Your task to perform on an android device: turn on bluetooth scan Image 0: 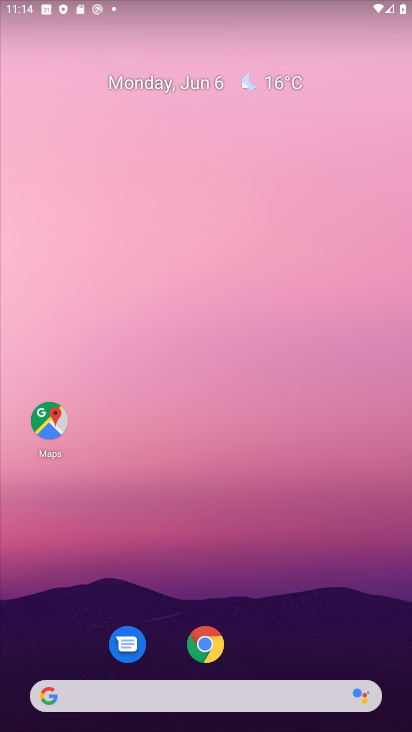
Step 0: drag from (312, 614) to (248, 233)
Your task to perform on an android device: turn on bluetooth scan Image 1: 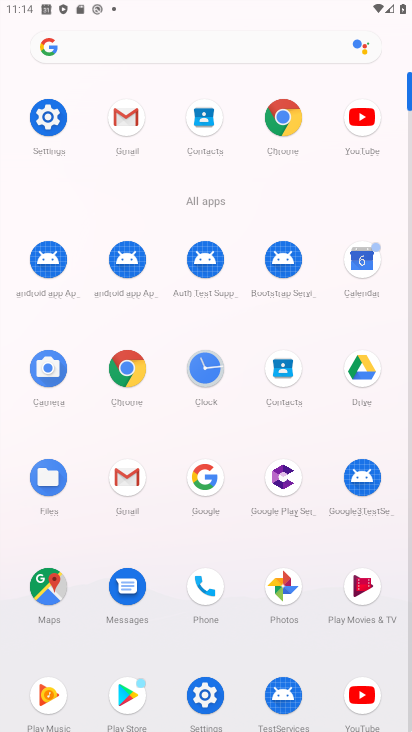
Step 1: click (43, 124)
Your task to perform on an android device: turn on bluetooth scan Image 2: 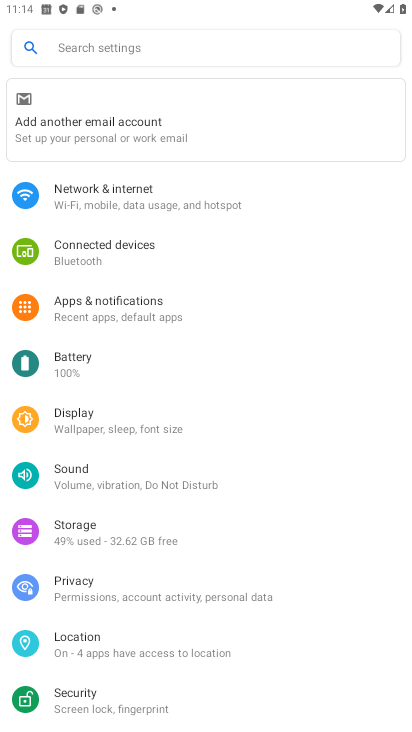
Step 2: click (163, 638)
Your task to perform on an android device: turn on bluetooth scan Image 3: 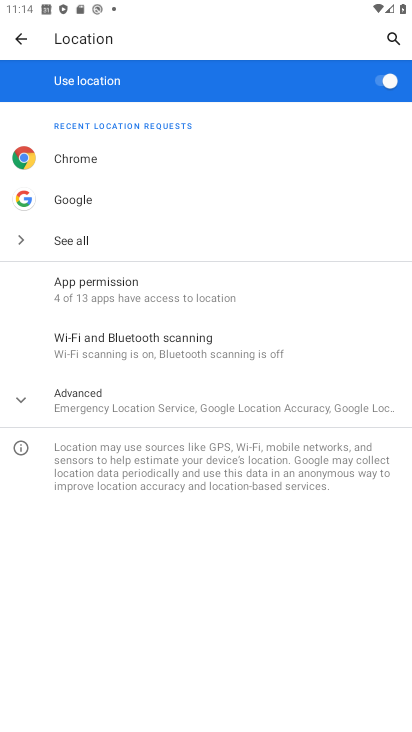
Step 3: click (230, 359)
Your task to perform on an android device: turn on bluetooth scan Image 4: 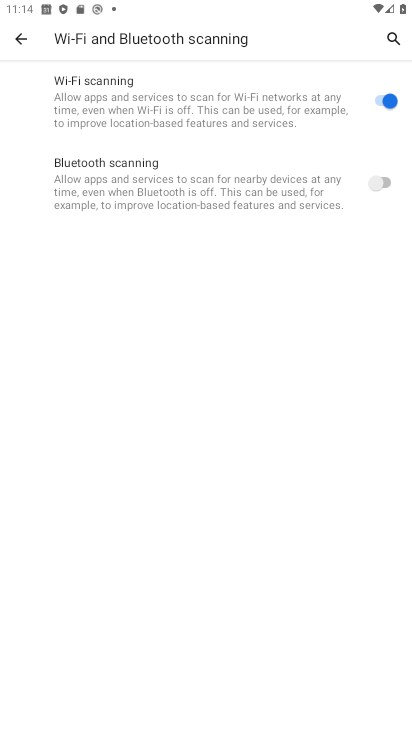
Step 4: click (388, 192)
Your task to perform on an android device: turn on bluetooth scan Image 5: 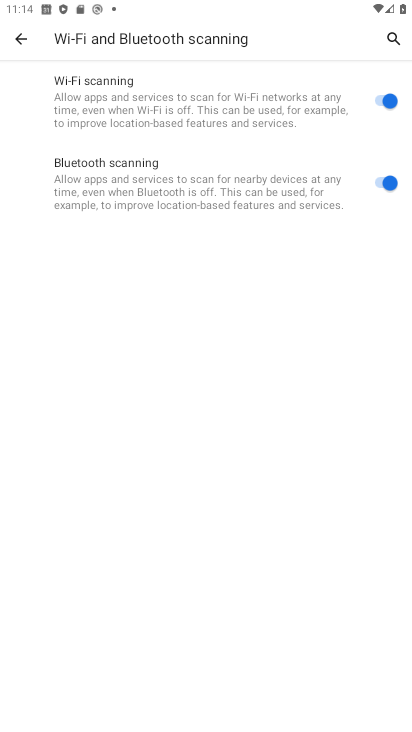
Step 5: task complete